Your task to perform on an android device: Search for Italian restaurants on Maps Image 0: 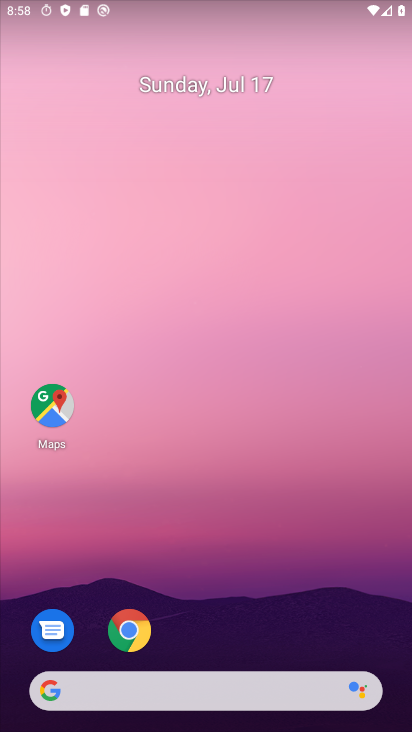
Step 0: click (92, 692)
Your task to perform on an android device: Search for Italian restaurants on Maps Image 1: 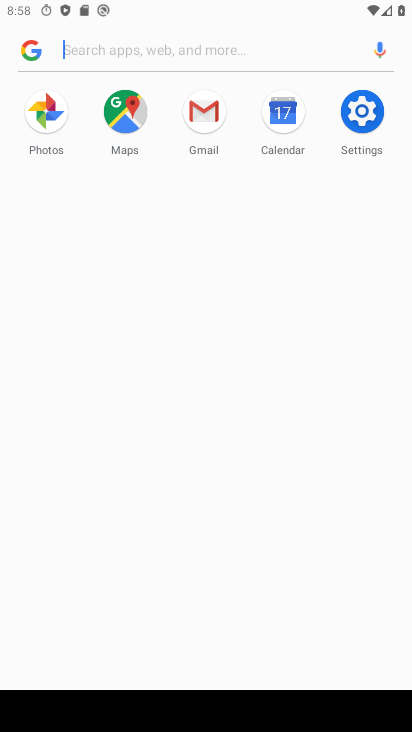
Step 1: type "Italian restaurants "
Your task to perform on an android device: Search for Italian restaurants on Maps Image 2: 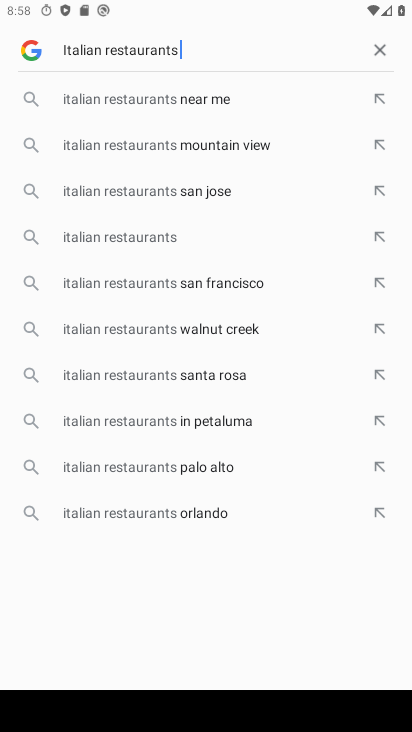
Step 2: type ""
Your task to perform on an android device: Search for Italian restaurants on Maps Image 3: 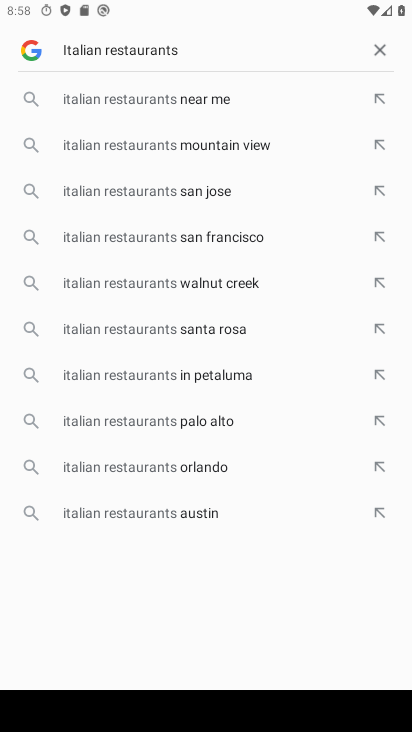
Step 3: type ""
Your task to perform on an android device: Search for Italian restaurants on Maps Image 4: 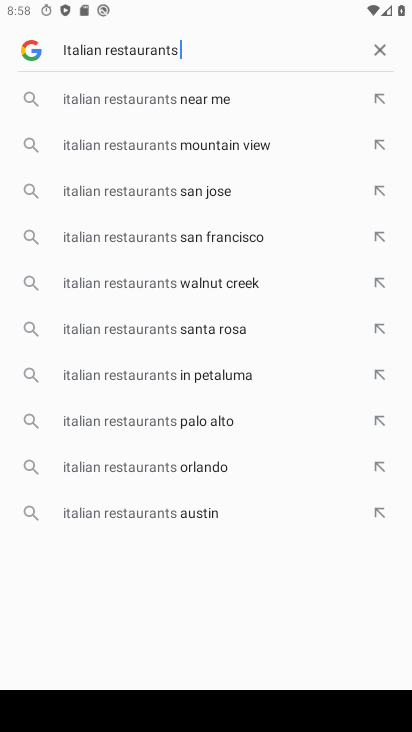
Step 4: type ""
Your task to perform on an android device: Search for Italian restaurants on Maps Image 5: 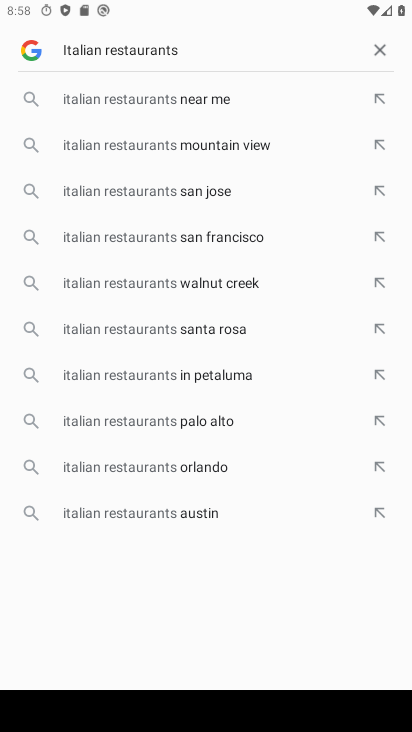
Step 5: task complete